Your task to perform on an android device: Turn off the flashlight Image 0: 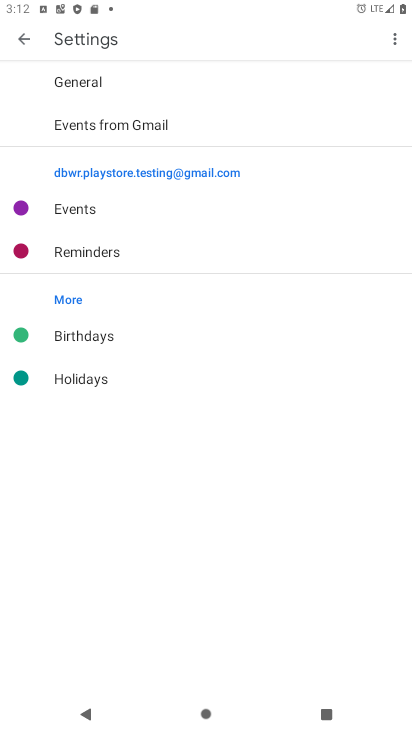
Step 0: press home button
Your task to perform on an android device: Turn off the flashlight Image 1: 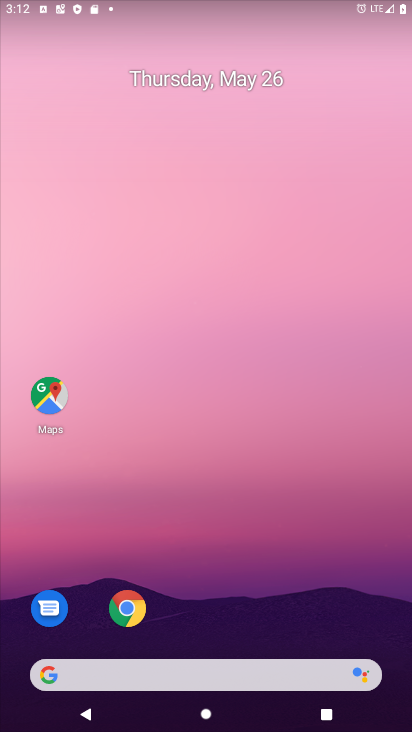
Step 1: drag from (339, 629) to (296, 155)
Your task to perform on an android device: Turn off the flashlight Image 2: 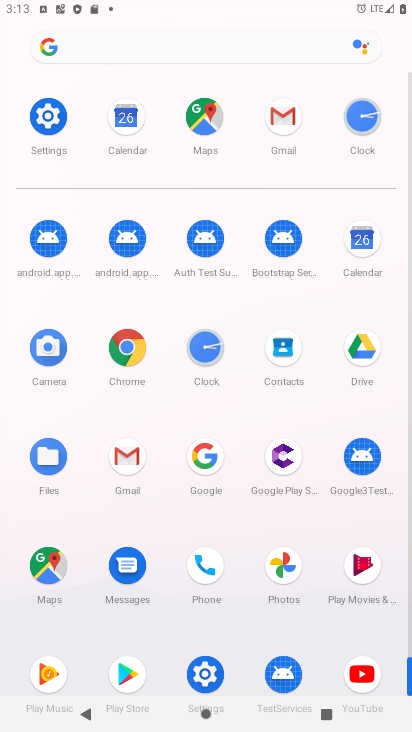
Step 2: press home button
Your task to perform on an android device: Turn off the flashlight Image 3: 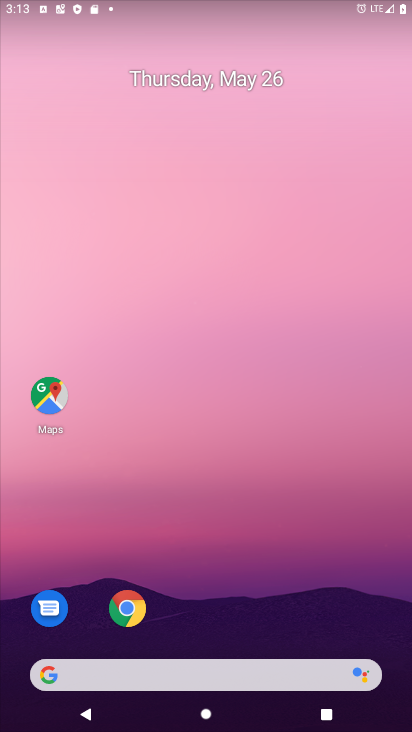
Step 3: drag from (220, 13) to (242, 455)
Your task to perform on an android device: Turn off the flashlight Image 4: 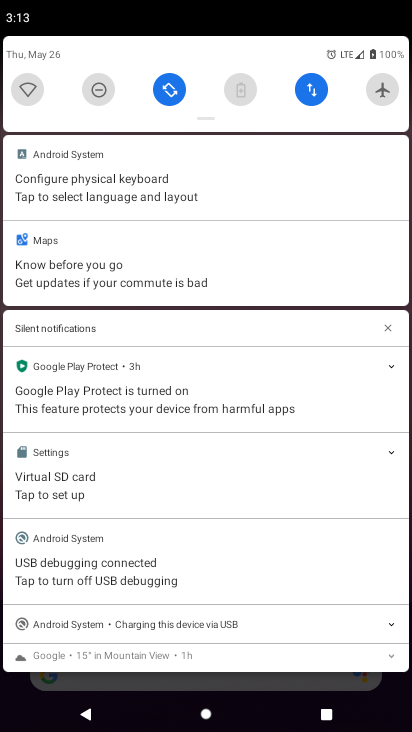
Step 4: drag from (208, 121) to (216, 442)
Your task to perform on an android device: Turn off the flashlight Image 5: 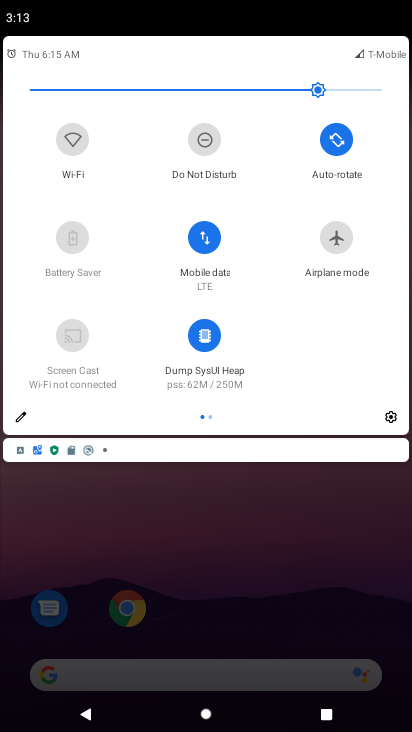
Step 5: click (22, 416)
Your task to perform on an android device: Turn off the flashlight Image 6: 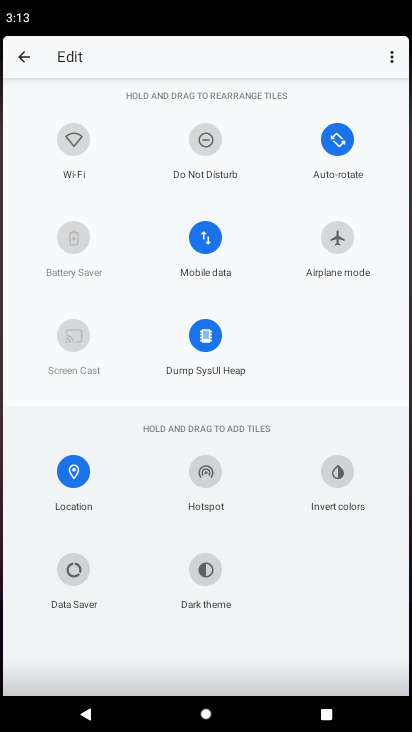
Step 6: task complete